Your task to perform on an android device: change alarm snooze length Image 0: 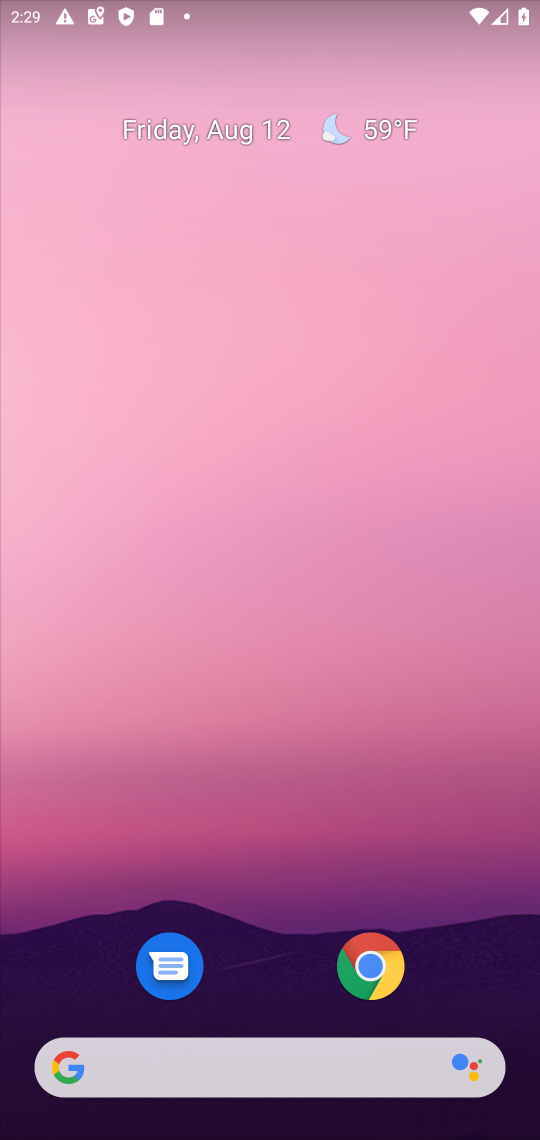
Step 0: drag from (280, 941) to (488, 206)
Your task to perform on an android device: change alarm snooze length Image 1: 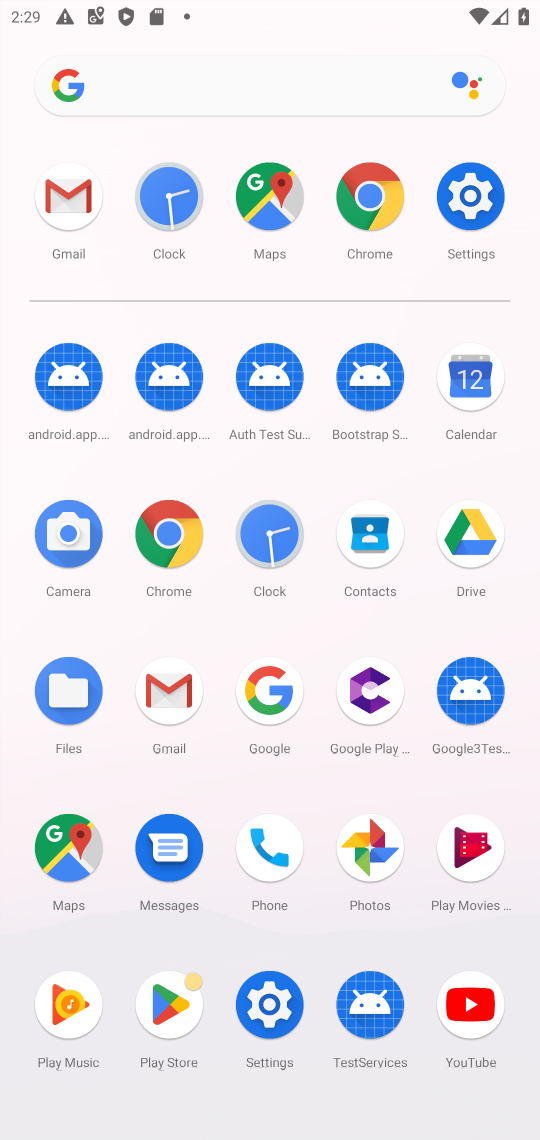
Step 1: click (270, 539)
Your task to perform on an android device: change alarm snooze length Image 2: 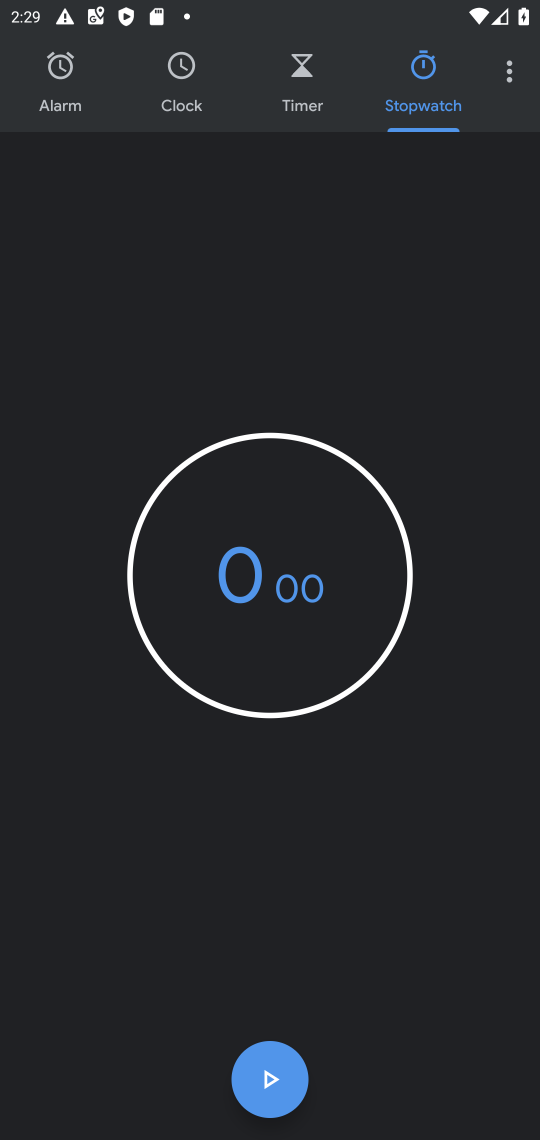
Step 2: click (509, 69)
Your task to perform on an android device: change alarm snooze length Image 3: 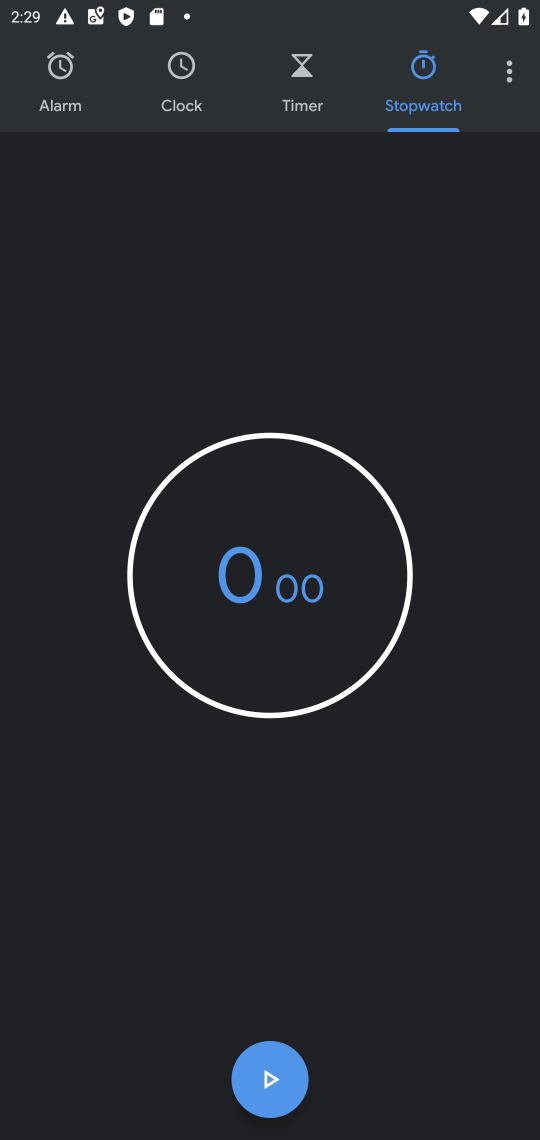
Step 3: click (508, 81)
Your task to perform on an android device: change alarm snooze length Image 4: 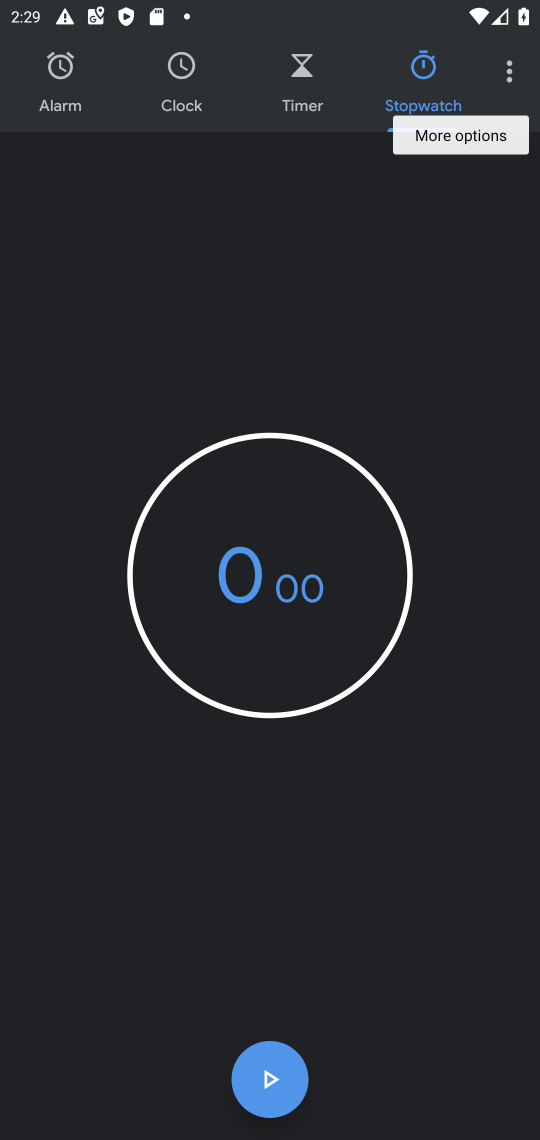
Step 4: click (508, 81)
Your task to perform on an android device: change alarm snooze length Image 5: 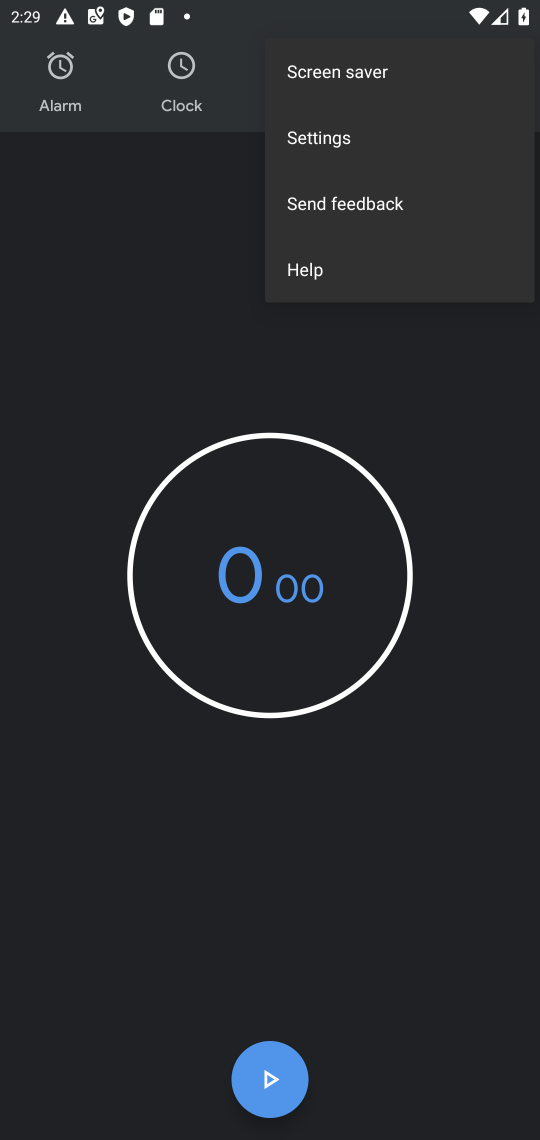
Step 5: click (373, 127)
Your task to perform on an android device: change alarm snooze length Image 6: 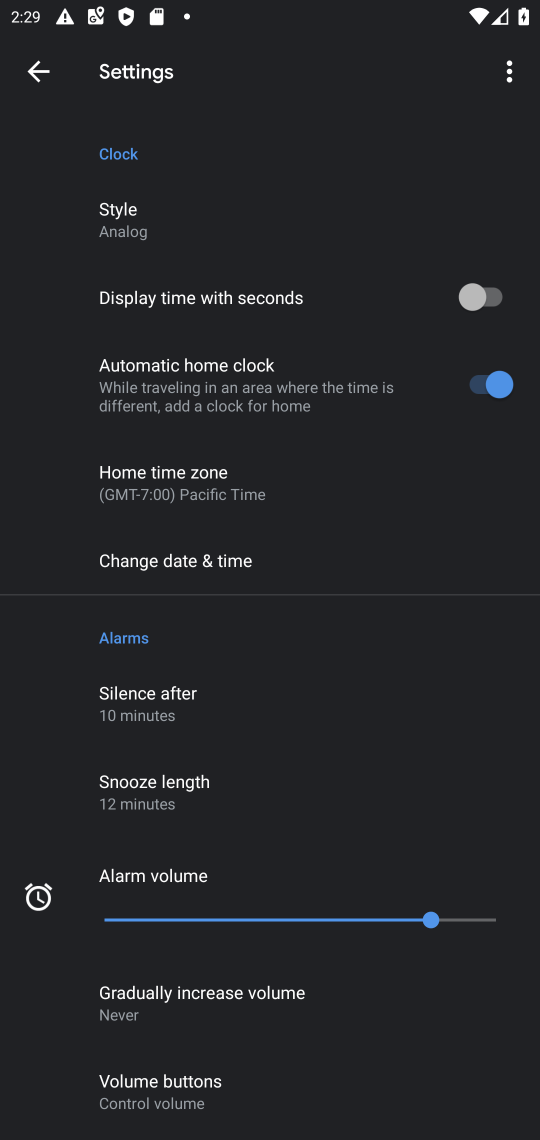
Step 6: click (140, 794)
Your task to perform on an android device: change alarm snooze length Image 7: 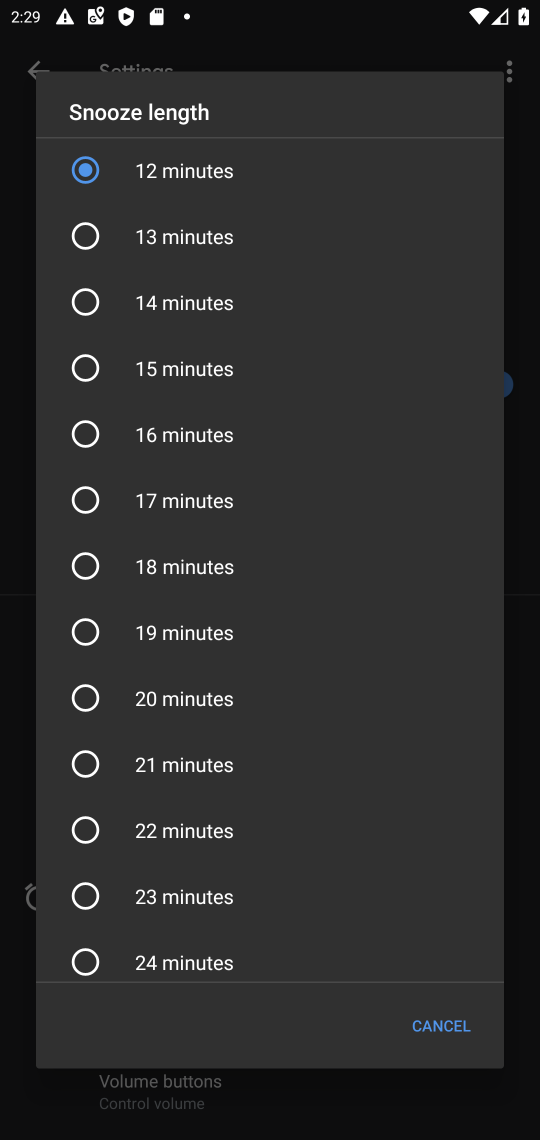
Step 7: click (164, 234)
Your task to perform on an android device: change alarm snooze length Image 8: 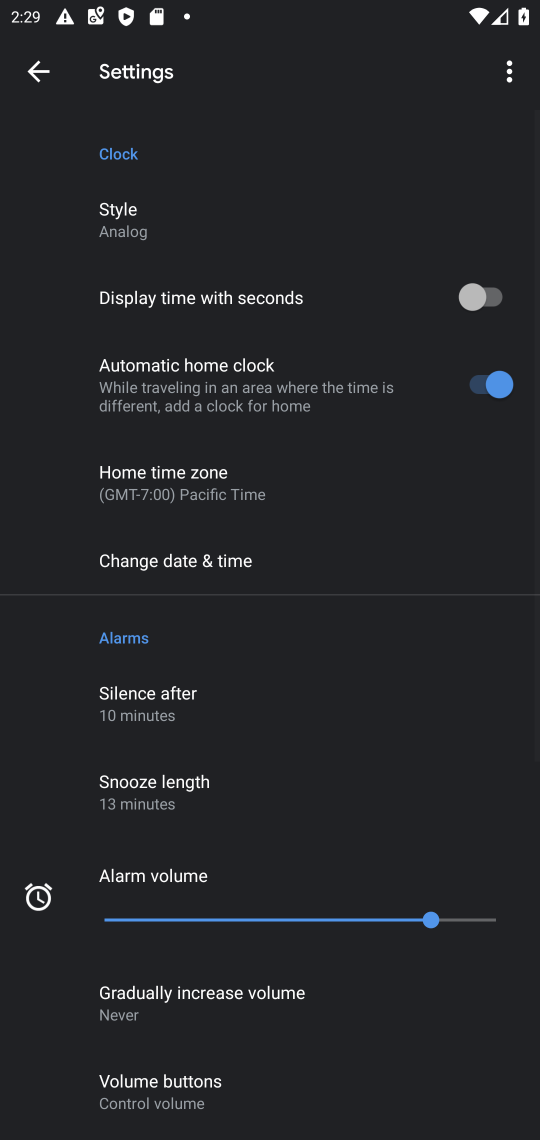
Step 8: task complete